Your task to perform on an android device: Go to internet settings Image 0: 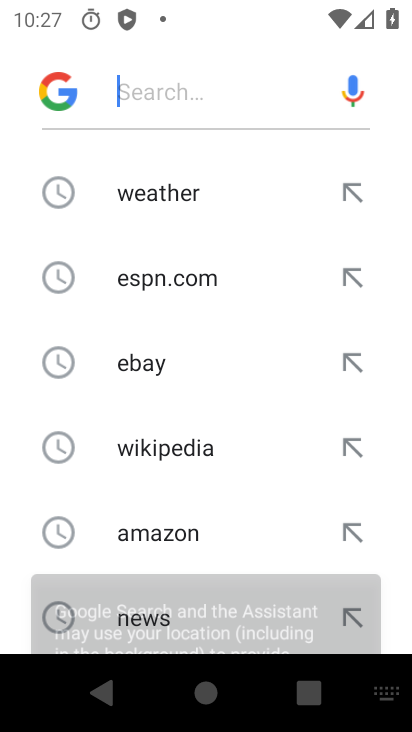
Step 0: press home button
Your task to perform on an android device: Go to internet settings Image 1: 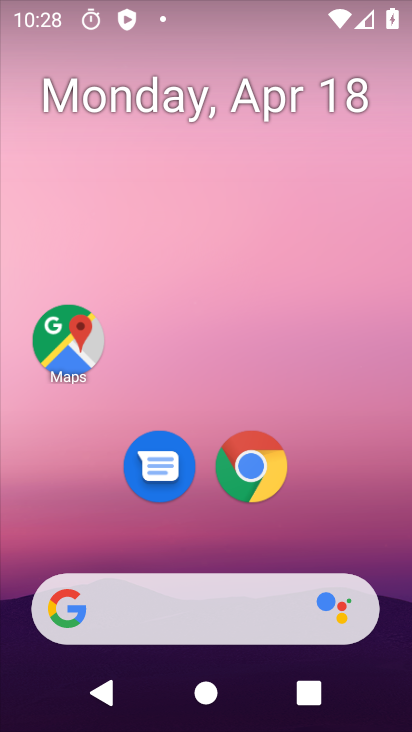
Step 1: drag from (327, 601) to (307, 164)
Your task to perform on an android device: Go to internet settings Image 2: 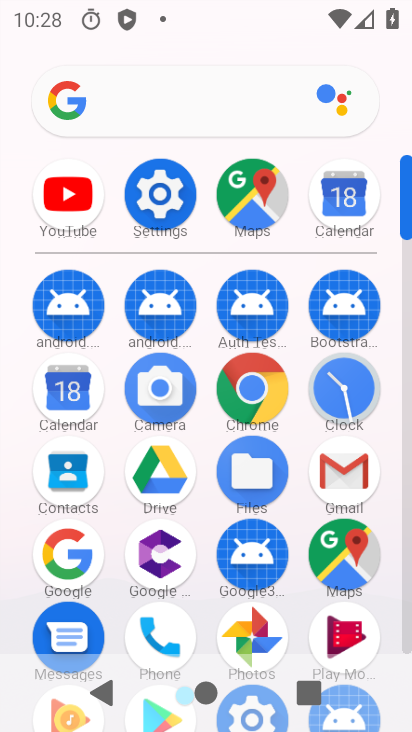
Step 2: click (164, 222)
Your task to perform on an android device: Go to internet settings Image 3: 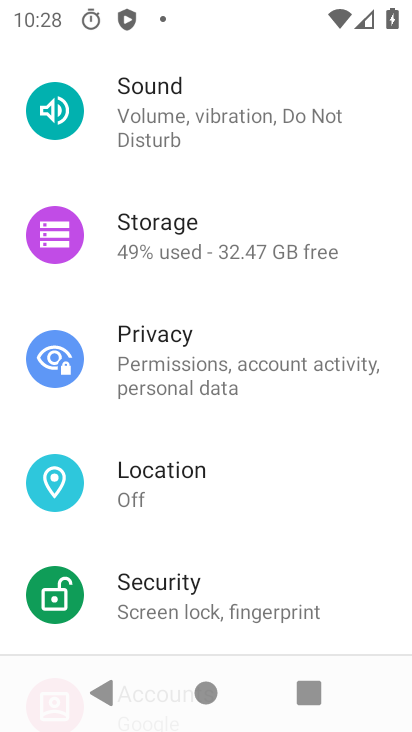
Step 3: drag from (201, 143) to (150, 528)
Your task to perform on an android device: Go to internet settings Image 4: 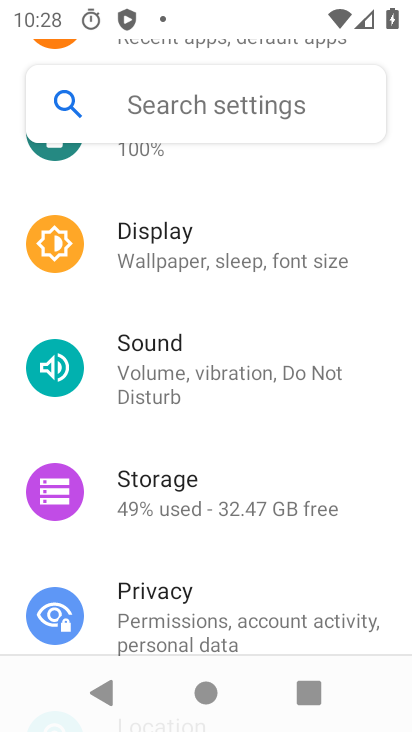
Step 4: drag from (210, 260) to (169, 541)
Your task to perform on an android device: Go to internet settings Image 5: 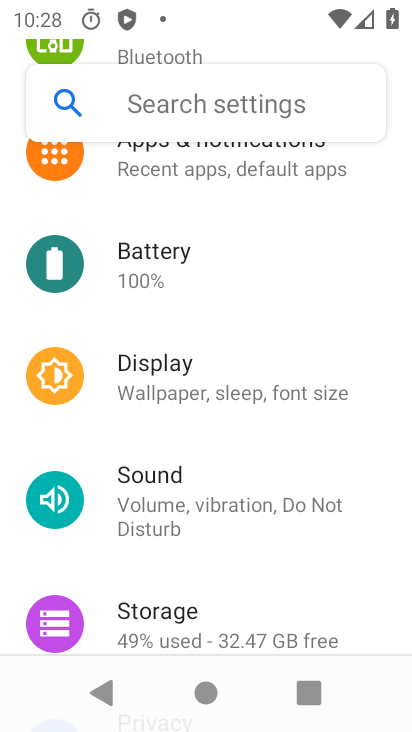
Step 5: drag from (207, 276) to (172, 654)
Your task to perform on an android device: Go to internet settings Image 6: 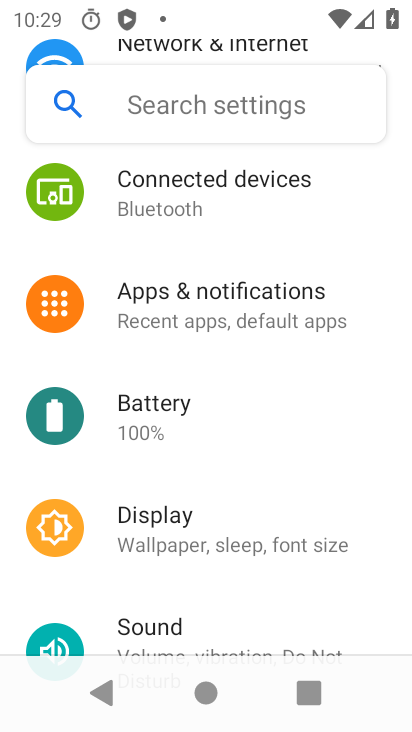
Step 6: drag from (197, 267) to (181, 582)
Your task to perform on an android device: Go to internet settings Image 7: 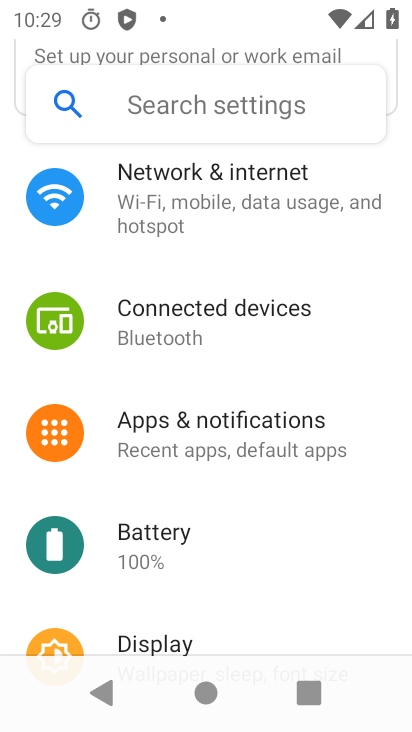
Step 7: click (201, 293)
Your task to perform on an android device: Go to internet settings Image 8: 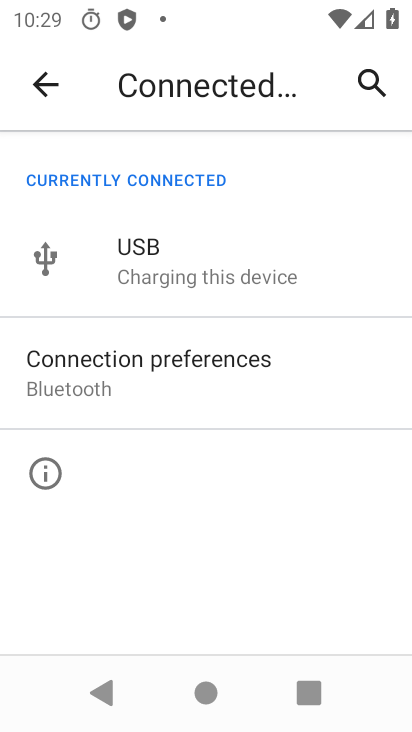
Step 8: click (36, 100)
Your task to perform on an android device: Go to internet settings Image 9: 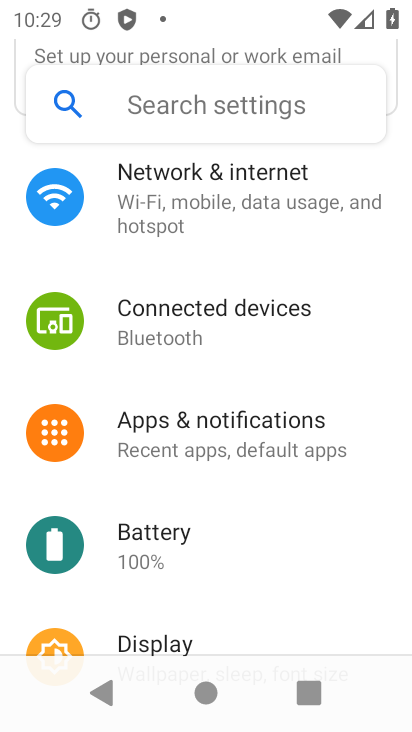
Step 9: drag from (237, 231) to (174, 547)
Your task to perform on an android device: Go to internet settings Image 10: 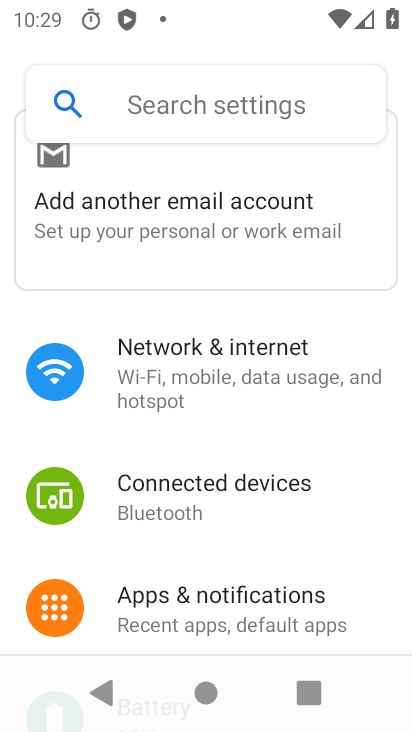
Step 10: click (209, 390)
Your task to perform on an android device: Go to internet settings Image 11: 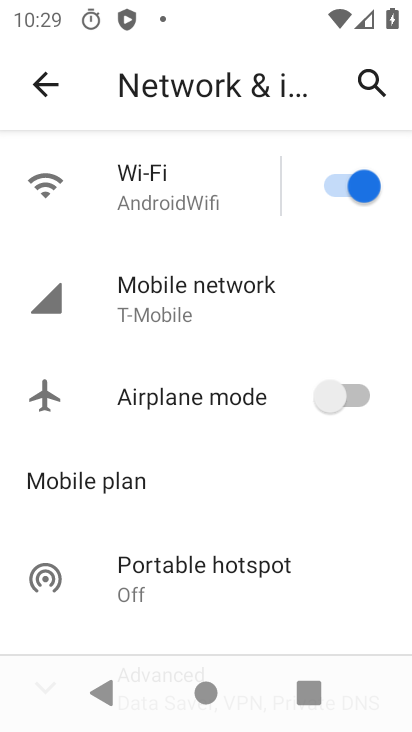
Step 11: click (177, 276)
Your task to perform on an android device: Go to internet settings Image 12: 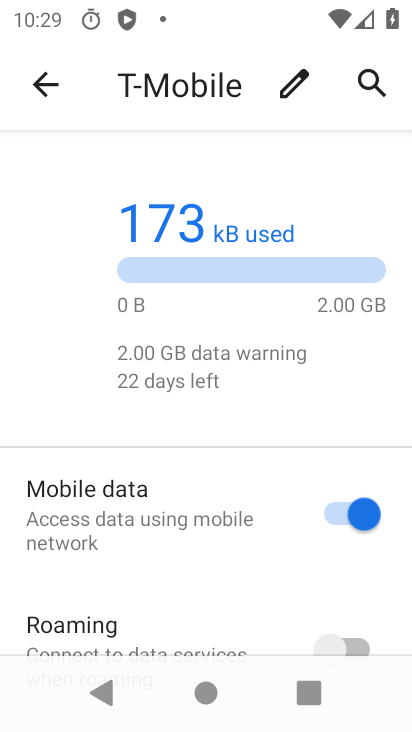
Step 12: task complete